Your task to perform on an android device: add a contact Image 0: 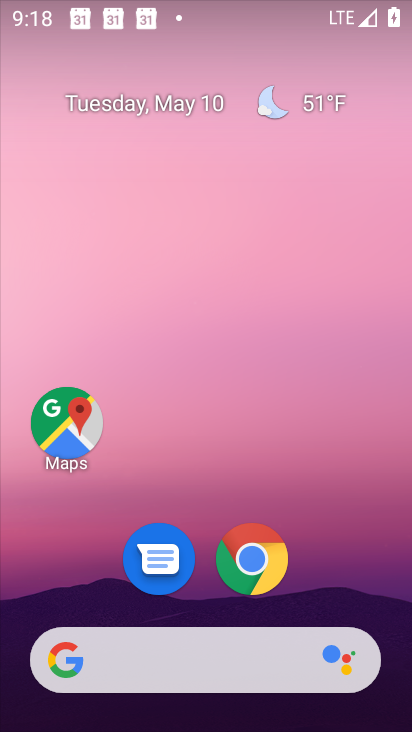
Step 0: drag from (338, 546) to (290, 74)
Your task to perform on an android device: add a contact Image 1: 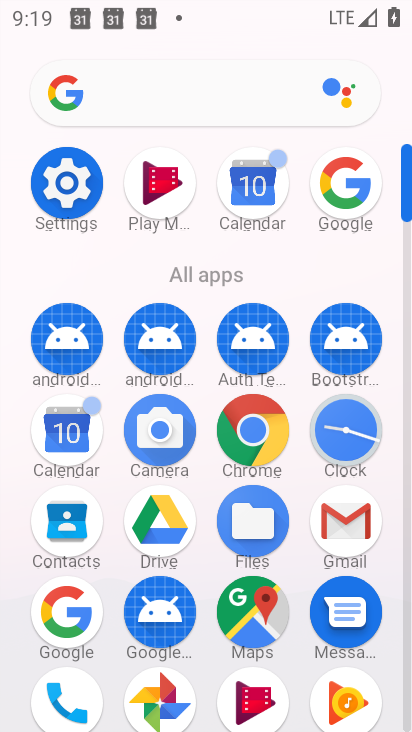
Step 1: click (69, 519)
Your task to perform on an android device: add a contact Image 2: 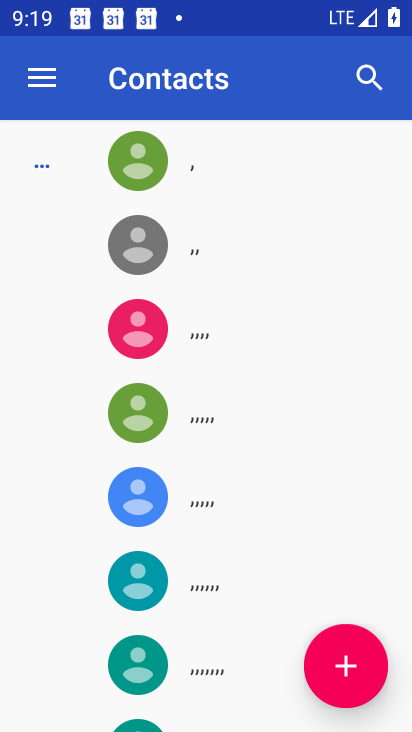
Step 2: click (347, 661)
Your task to perform on an android device: add a contact Image 3: 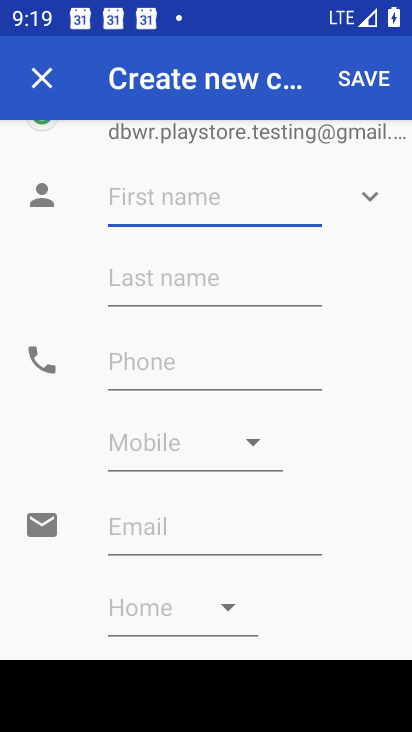
Step 3: click (161, 207)
Your task to perform on an android device: add a contact Image 4: 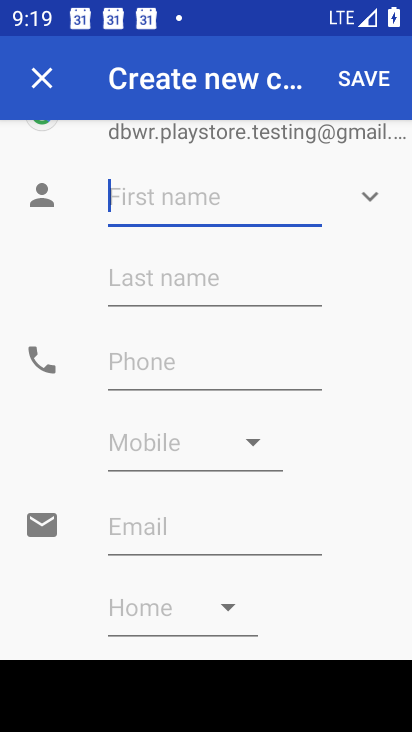
Step 4: type "Chandrapratap"
Your task to perform on an android device: add a contact Image 5: 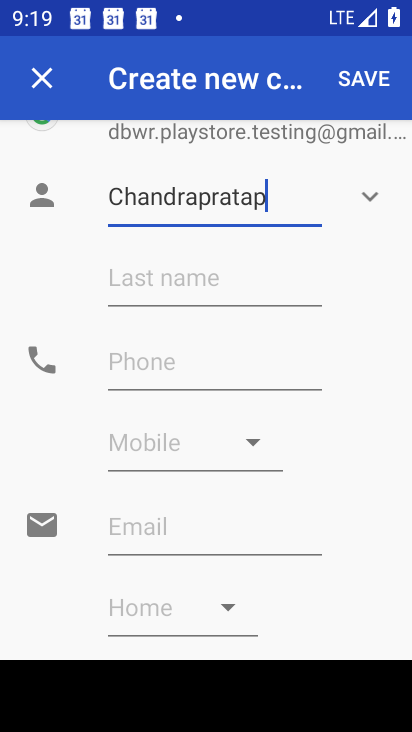
Step 5: click (199, 291)
Your task to perform on an android device: add a contact Image 6: 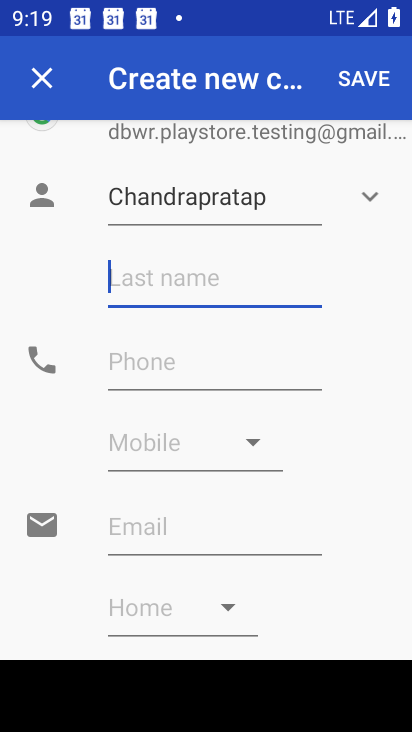
Step 6: type "Dubey"
Your task to perform on an android device: add a contact Image 7: 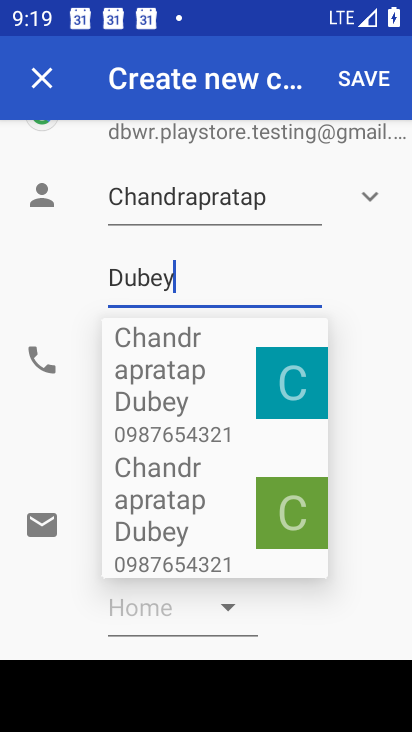
Step 7: click (175, 379)
Your task to perform on an android device: add a contact Image 8: 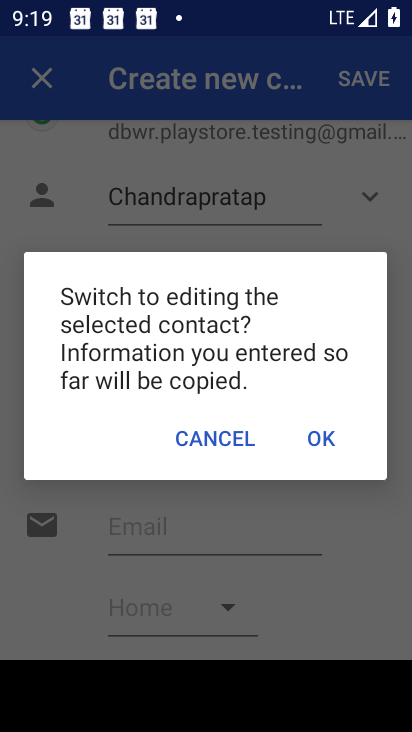
Step 8: click (186, 439)
Your task to perform on an android device: add a contact Image 9: 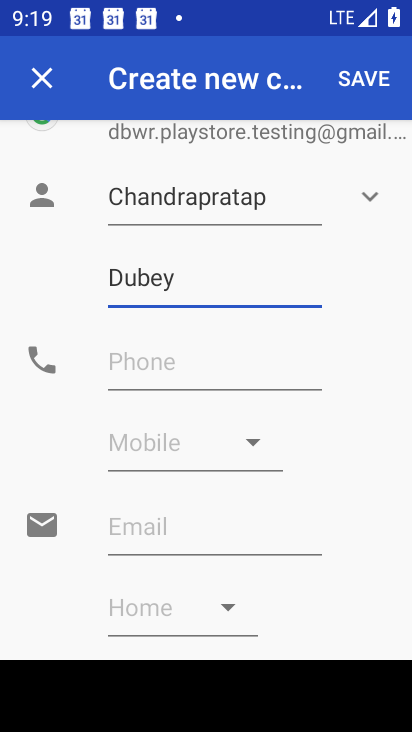
Step 9: click (205, 369)
Your task to perform on an android device: add a contact Image 10: 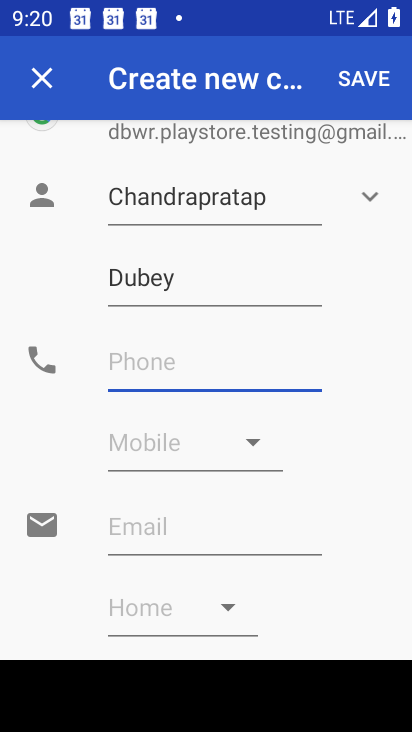
Step 10: type "0088997788998"
Your task to perform on an android device: add a contact Image 11: 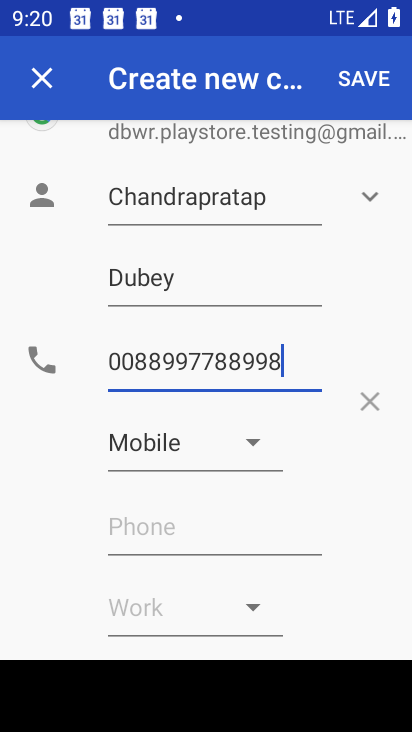
Step 11: click (365, 78)
Your task to perform on an android device: add a contact Image 12: 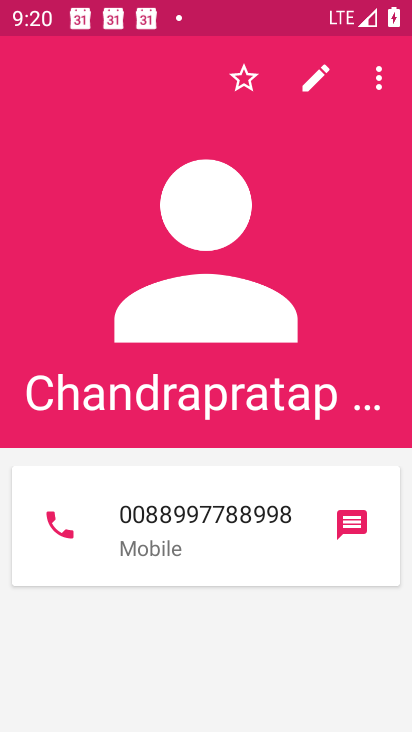
Step 12: task complete